Your task to perform on an android device: Open settings on Google Maps Image 0: 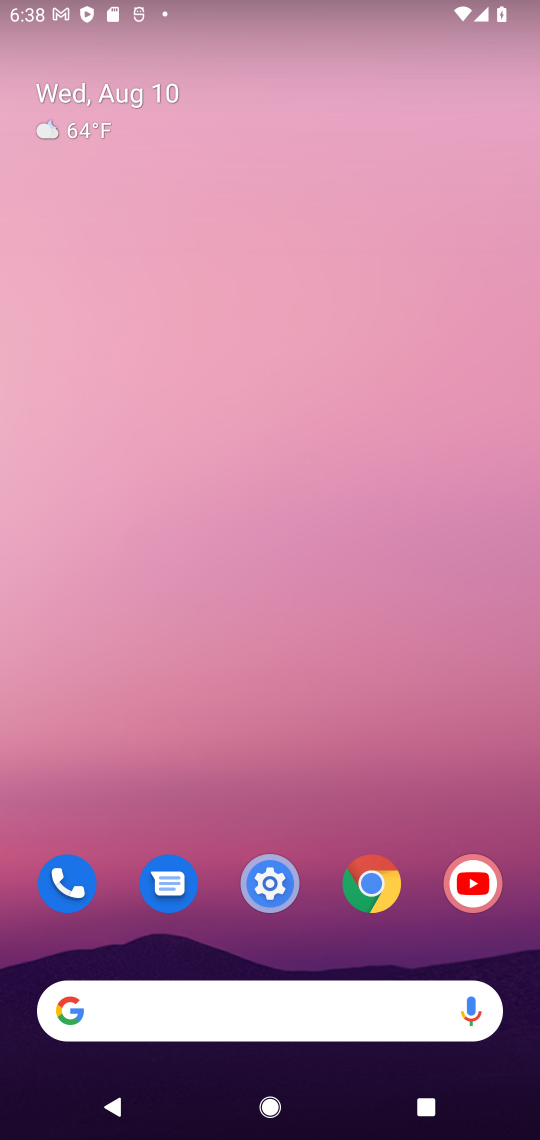
Step 0: drag from (310, 907) to (285, 370)
Your task to perform on an android device: Open settings on Google Maps Image 1: 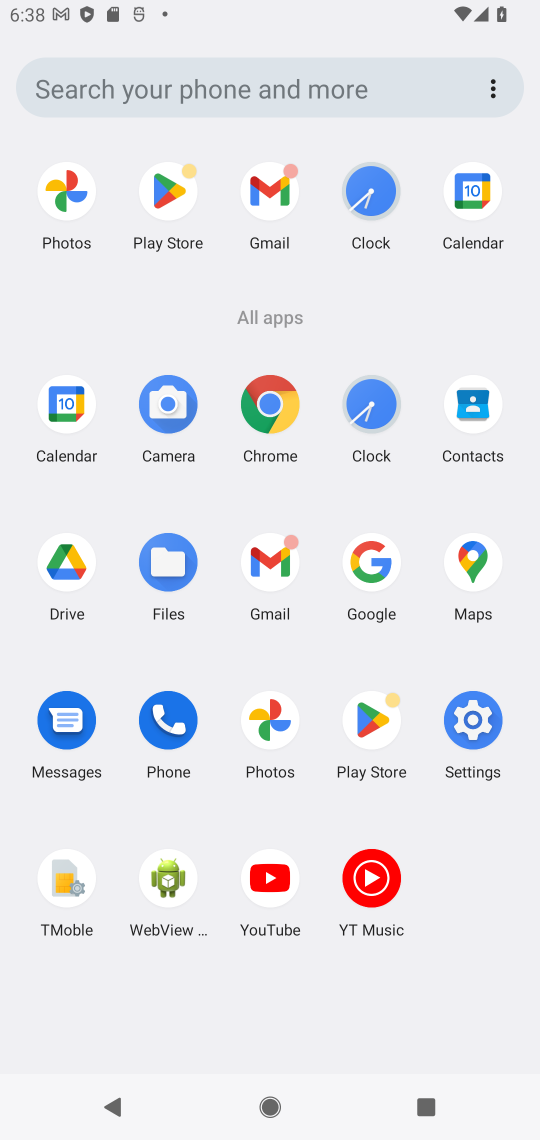
Step 1: click (476, 553)
Your task to perform on an android device: Open settings on Google Maps Image 2: 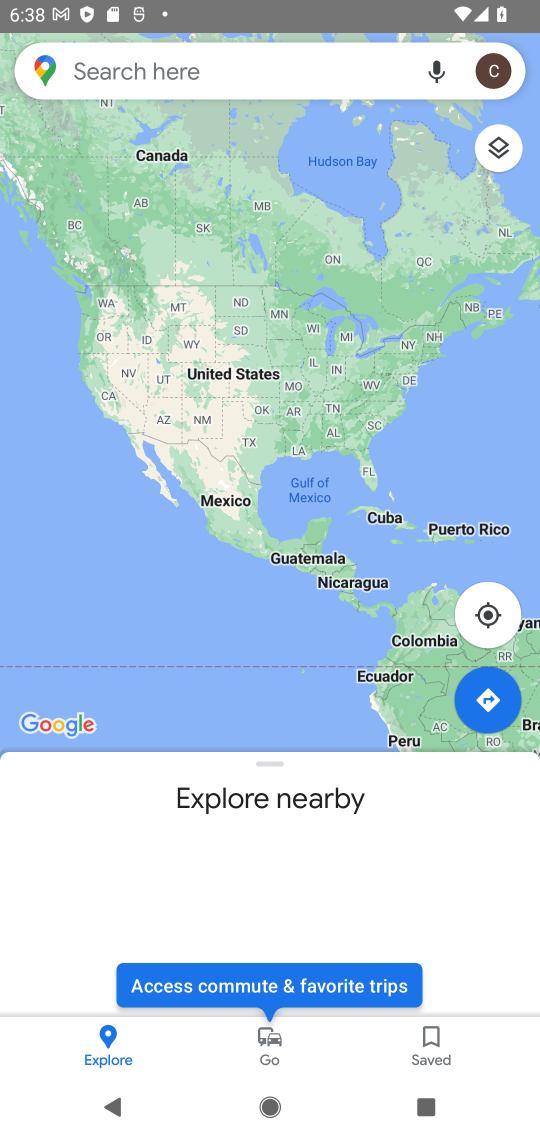
Step 2: click (499, 65)
Your task to perform on an android device: Open settings on Google Maps Image 3: 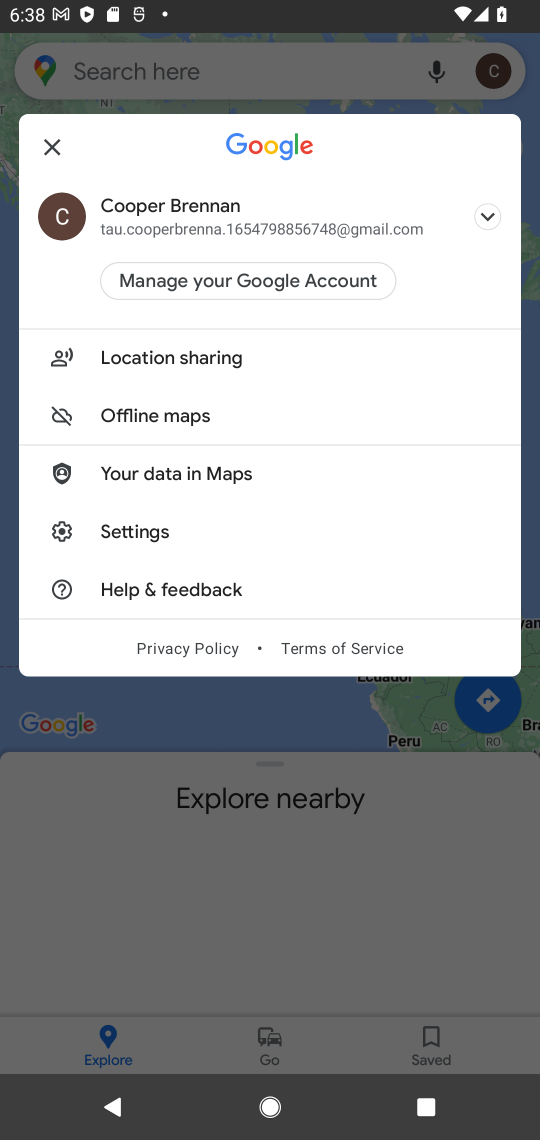
Step 3: click (126, 527)
Your task to perform on an android device: Open settings on Google Maps Image 4: 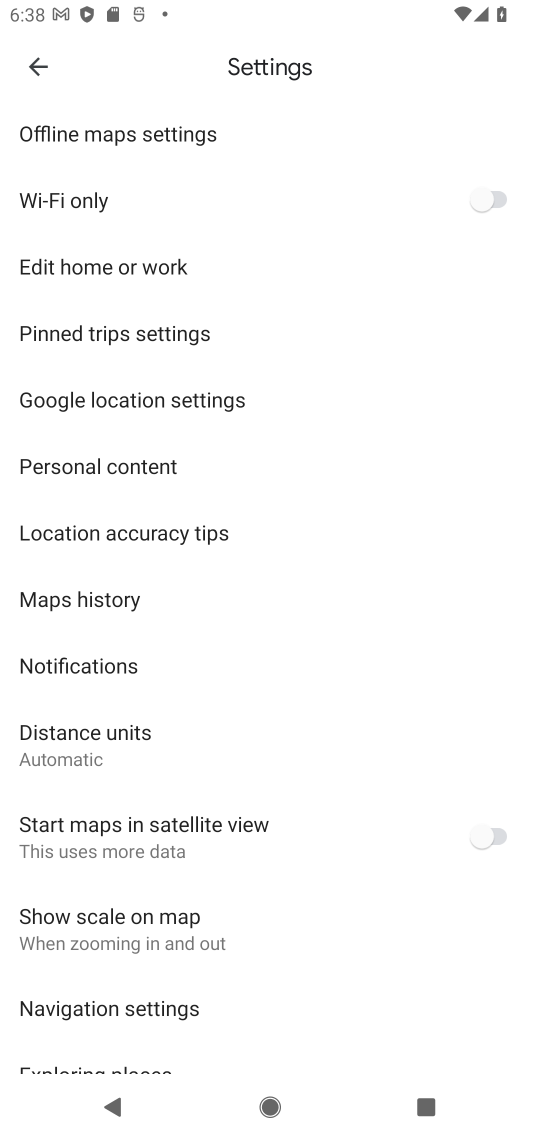
Step 4: task complete